Your task to perform on an android device: toggle notification dots Image 0: 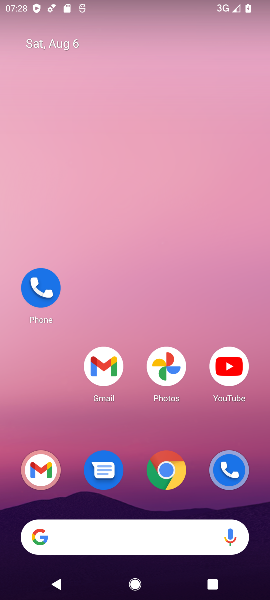
Step 0: drag from (108, 583) to (29, 309)
Your task to perform on an android device: toggle notification dots Image 1: 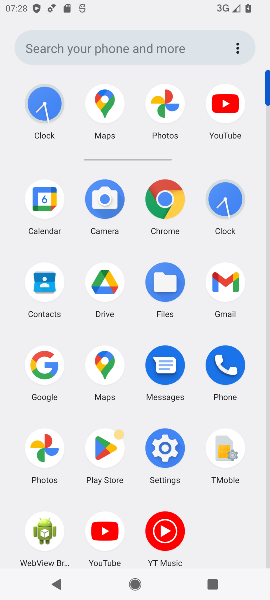
Step 1: click (172, 458)
Your task to perform on an android device: toggle notification dots Image 2: 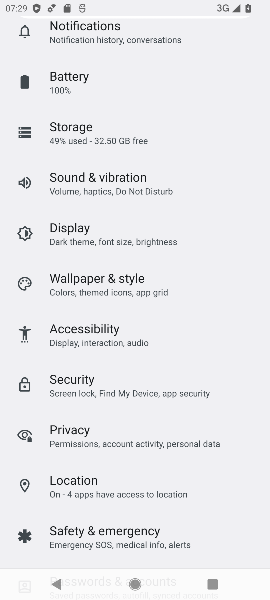
Step 2: drag from (47, 106) to (59, 289)
Your task to perform on an android device: toggle notification dots Image 3: 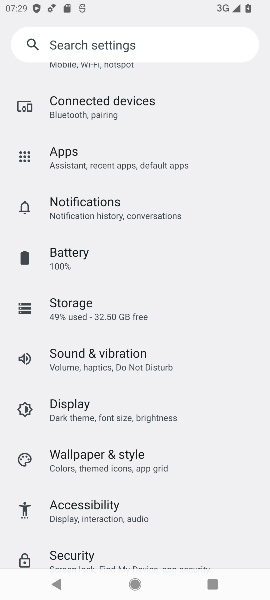
Step 3: click (61, 218)
Your task to perform on an android device: toggle notification dots Image 4: 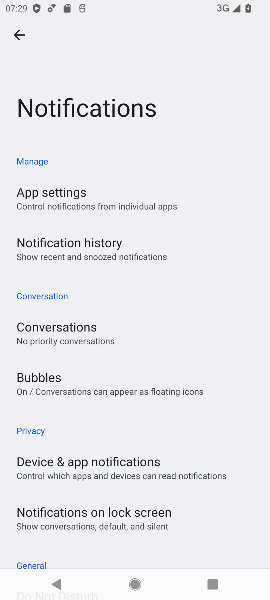
Step 4: drag from (84, 445) to (109, 178)
Your task to perform on an android device: toggle notification dots Image 5: 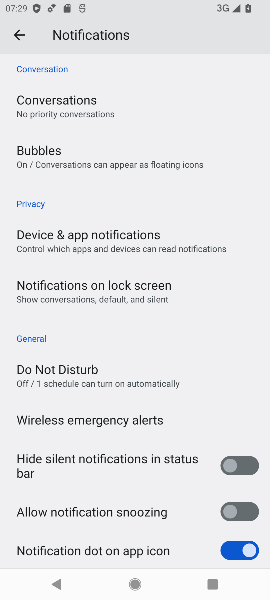
Step 5: drag from (111, 518) to (129, 401)
Your task to perform on an android device: toggle notification dots Image 6: 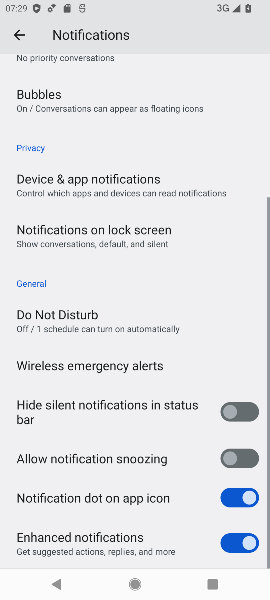
Step 6: click (129, 401)
Your task to perform on an android device: toggle notification dots Image 7: 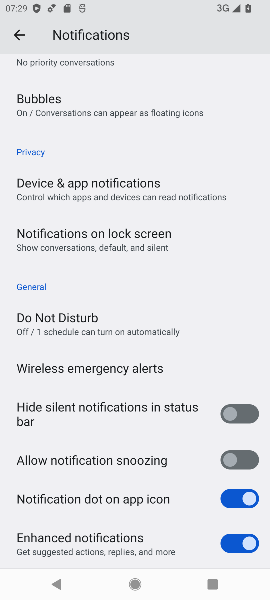
Step 7: click (112, 496)
Your task to perform on an android device: toggle notification dots Image 8: 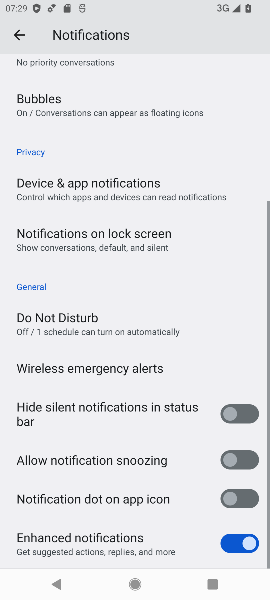
Step 8: task complete